Your task to perform on an android device: Open Amazon Image 0: 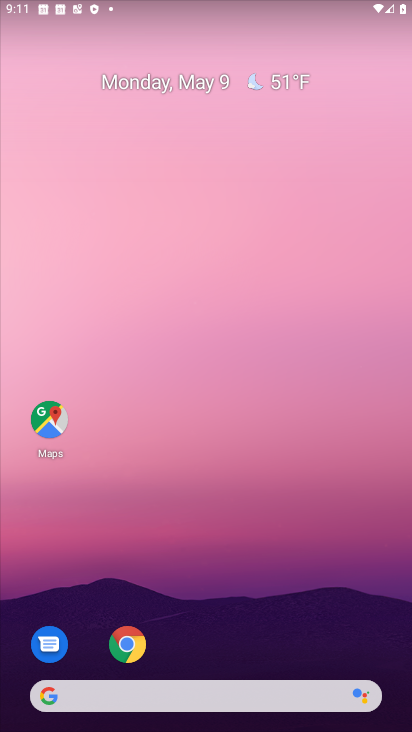
Step 0: click (124, 639)
Your task to perform on an android device: Open Amazon Image 1: 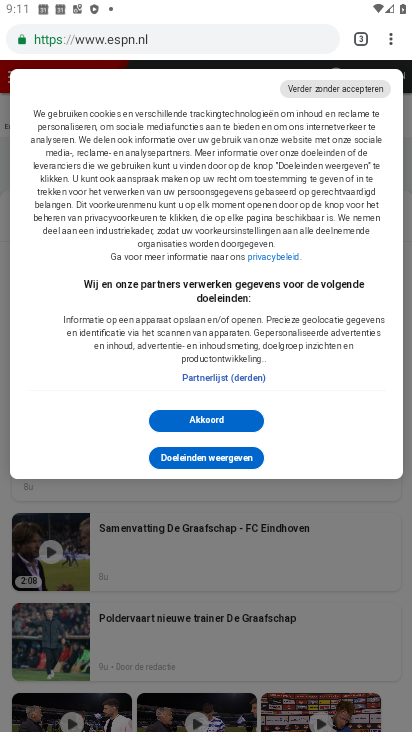
Step 1: click (353, 40)
Your task to perform on an android device: Open Amazon Image 2: 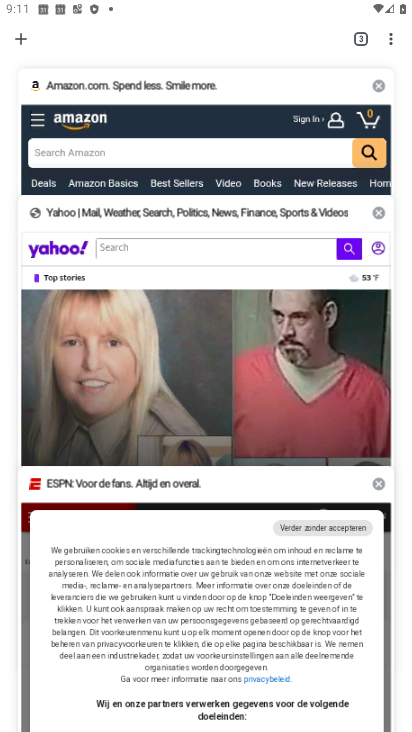
Step 2: click (14, 34)
Your task to perform on an android device: Open Amazon Image 3: 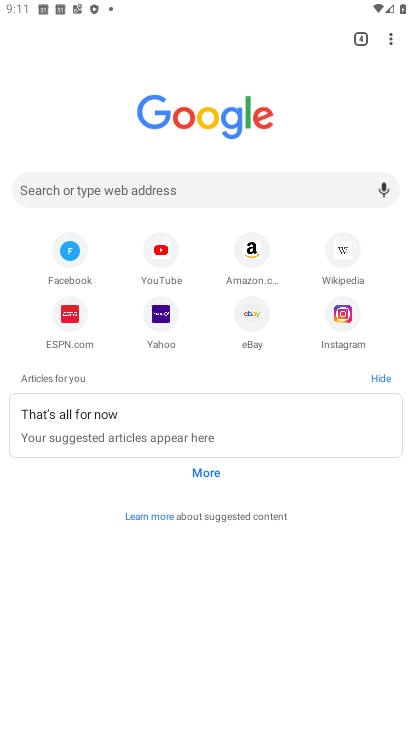
Step 3: click (250, 250)
Your task to perform on an android device: Open Amazon Image 4: 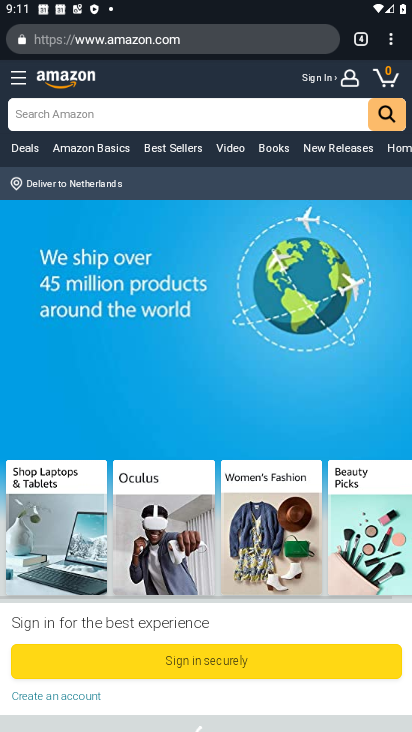
Step 4: task complete